Your task to perform on an android device: When is my next meeting? Image 0: 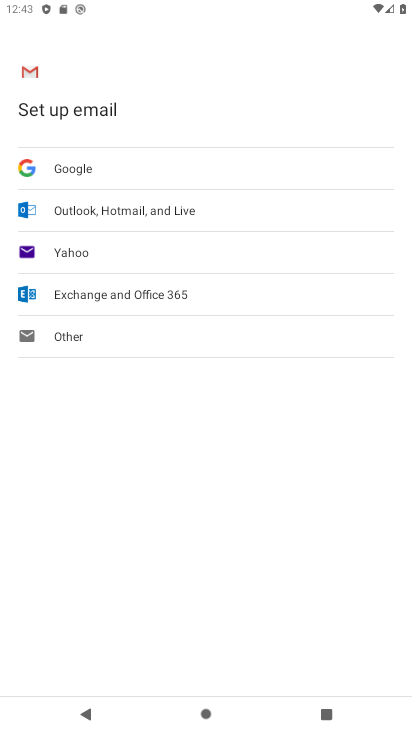
Step 0: press home button
Your task to perform on an android device: When is my next meeting? Image 1: 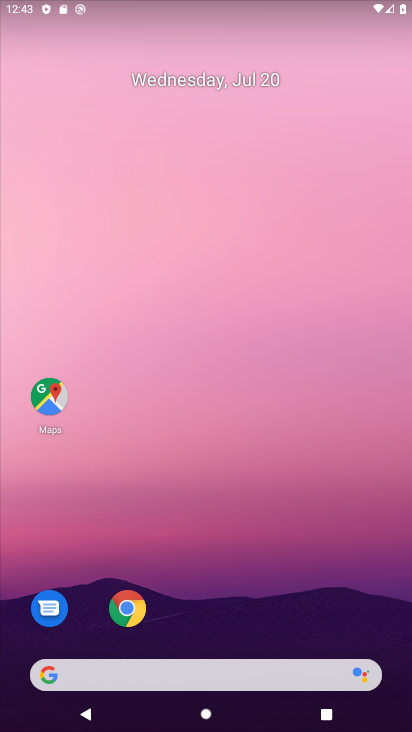
Step 1: drag from (203, 603) to (232, 235)
Your task to perform on an android device: When is my next meeting? Image 2: 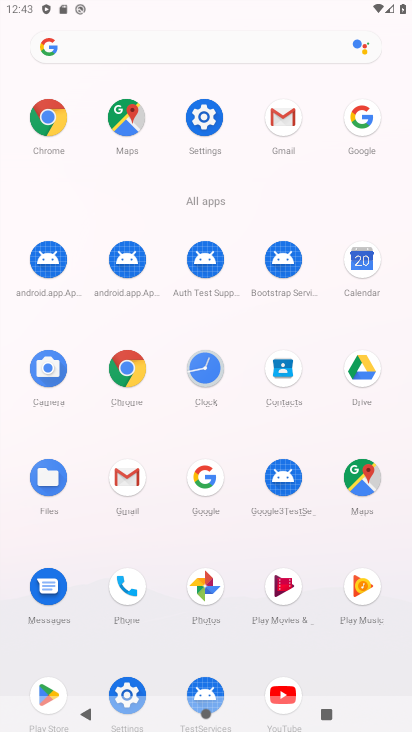
Step 2: click (359, 267)
Your task to perform on an android device: When is my next meeting? Image 3: 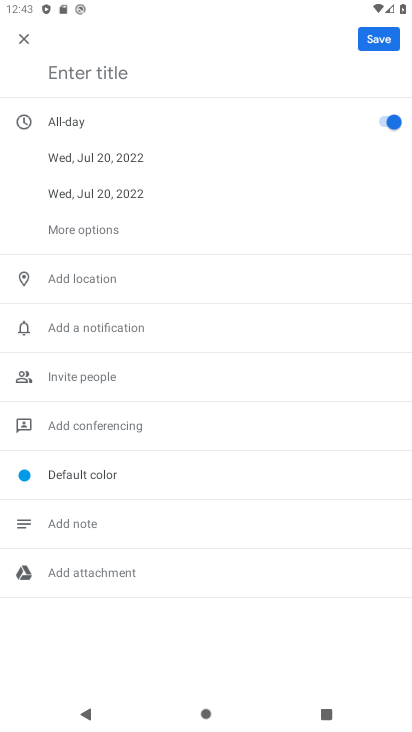
Step 3: click (22, 38)
Your task to perform on an android device: When is my next meeting? Image 4: 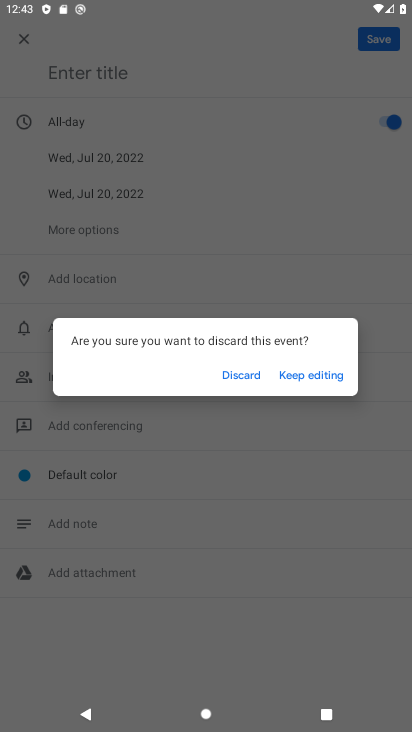
Step 4: click (231, 377)
Your task to perform on an android device: When is my next meeting? Image 5: 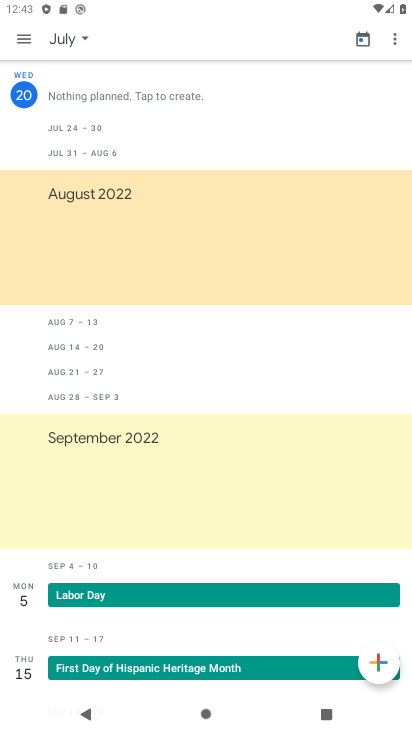
Step 5: click (23, 29)
Your task to perform on an android device: When is my next meeting? Image 6: 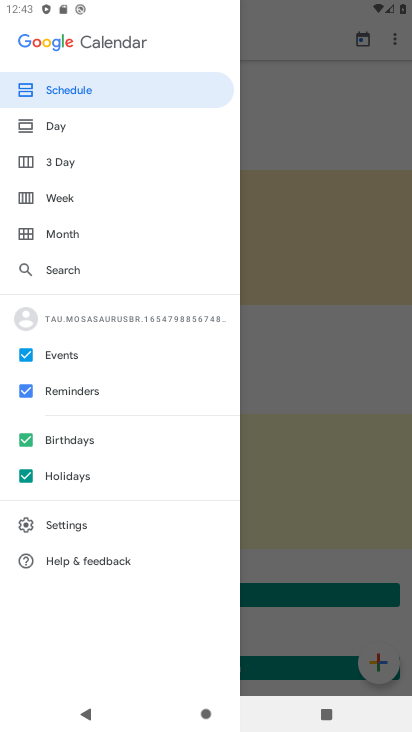
Step 6: click (44, 89)
Your task to perform on an android device: When is my next meeting? Image 7: 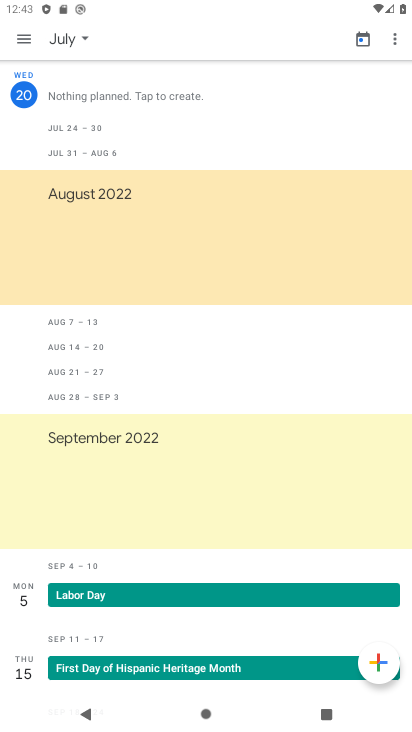
Step 7: click (62, 37)
Your task to perform on an android device: When is my next meeting? Image 8: 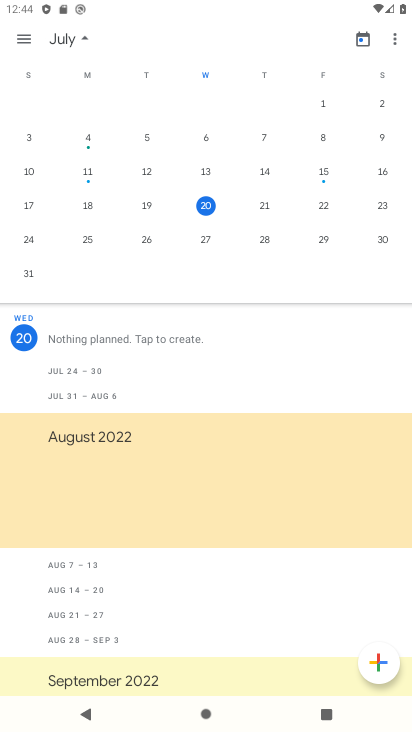
Step 8: task complete